Your task to perform on an android device: Open Chrome and go to the settings page Image 0: 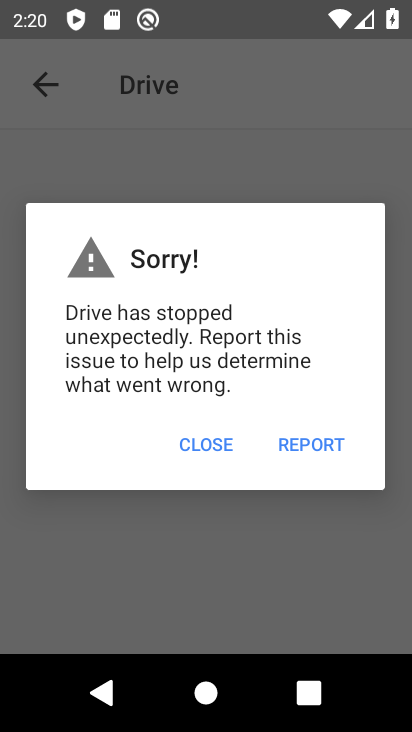
Step 0: press home button
Your task to perform on an android device: Open Chrome and go to the settings page Image 1: 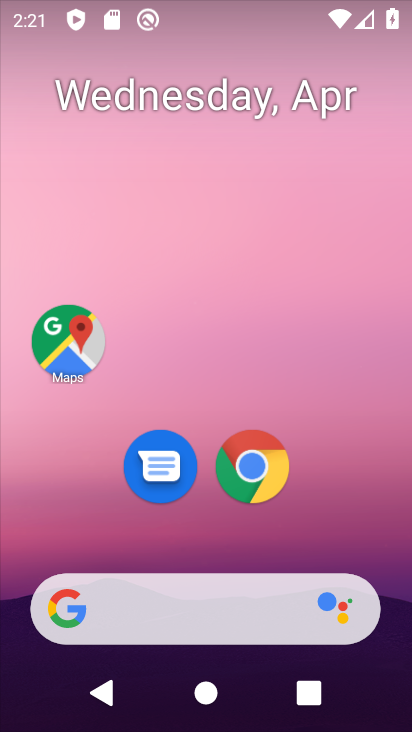
Step 1: drag from (326, 454) to (334, 183)
Your task to perform on an android device: Open Chrome and go to the settings page Image 2: 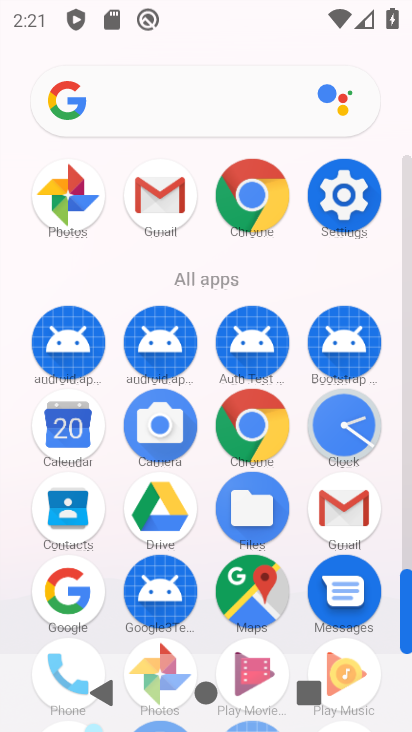
Step 2: click (264, 193)
Your task to perform on an android device: Open Chrome and go to the settings page Image 3: 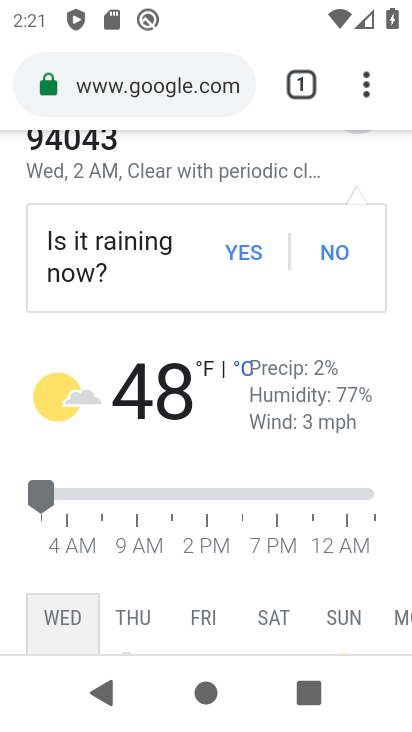
Step 3: click (360, 87)
Your task to perform on an android device: Open Chrome and go to the settings page Image 4: 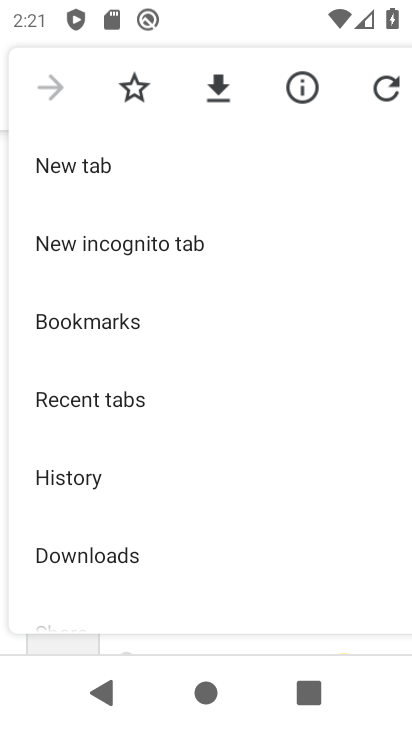
Step 4: drag from (147, 534) to (184, 160)
Your task to perform on an android device: Open Chrome and go to the settings page Image 5: 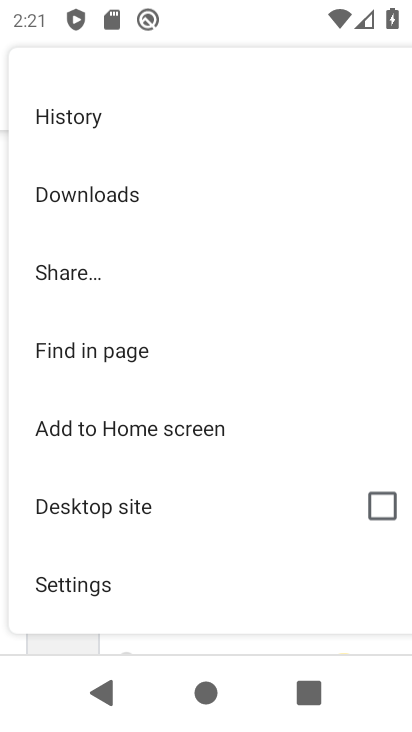
Step 5: click (148, 576)
Your task to perform on an android device: Open Chrome and go to the settings page Image 6: 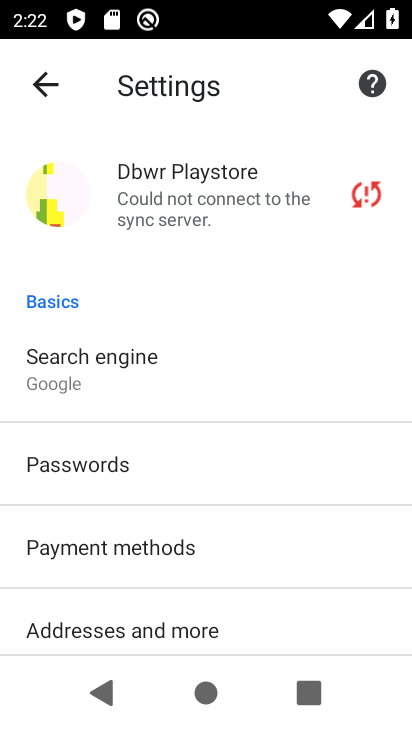
Step 6: task complete